Your task to perform on an android device: turn off picture-in-picture Image 0: 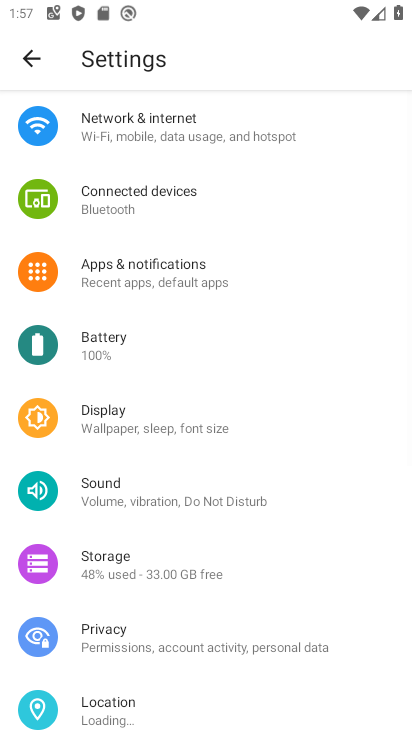
Step 0: press home button
Your task to perform on an android device: turn off picture-in-picture Image 1: 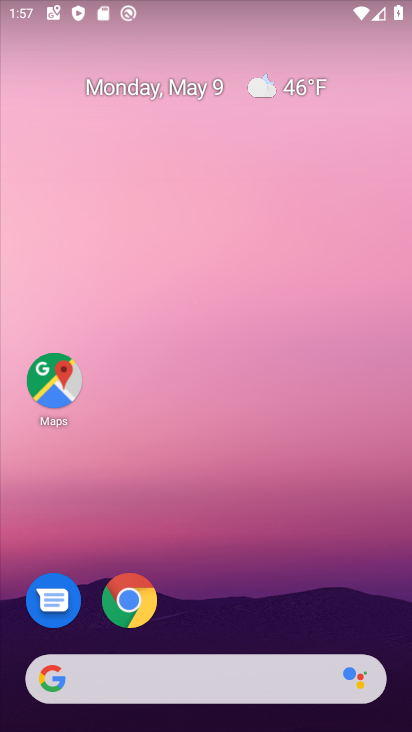
Step 1: click (124, 608)
Your task to perform on an android device: turn off picture-in-picture Image 2: 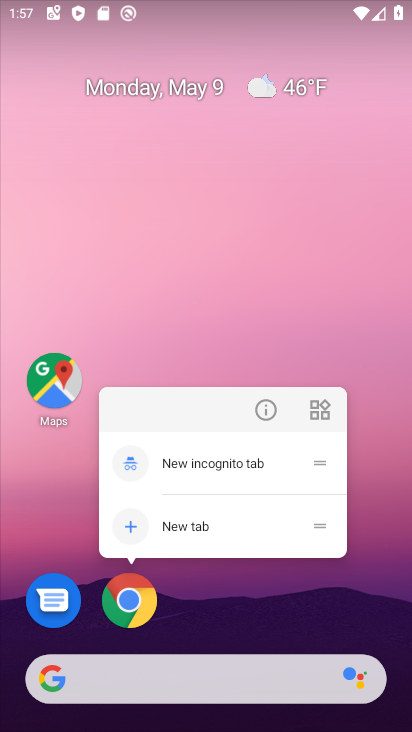
Step 2: click (260, 427)
Your task to perform on an android device: turn off picture-in-picture Image 3: 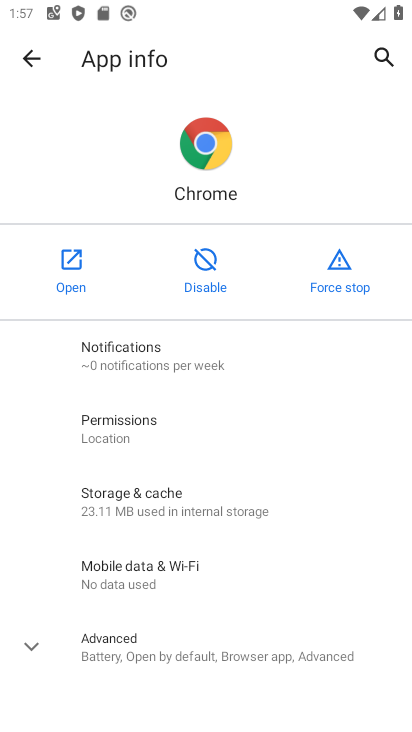
Step 3: click (124, 645)
Your task to perform on an android device: turn off picture-in-picture Image 4: 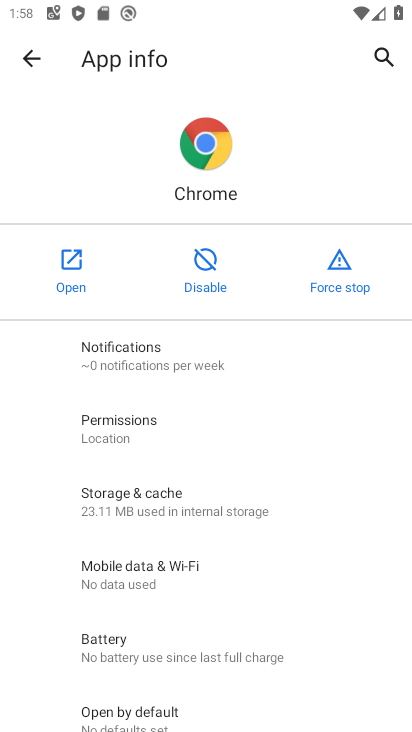
Step 4: drag from (183, 618) to (213, 233)
Your task to perform on an android device: turn off picture-in-picture Image 5: 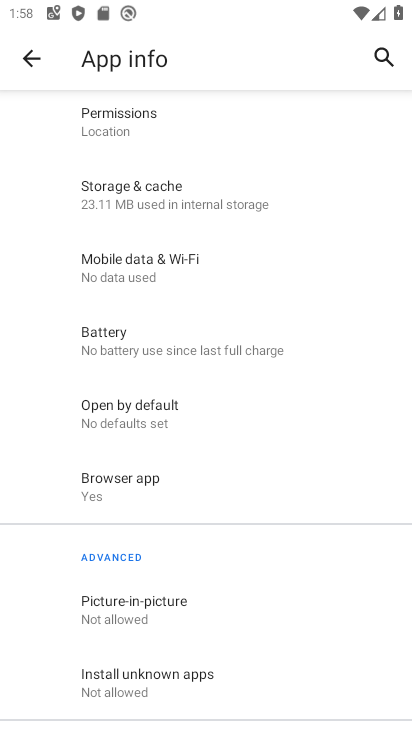
Step 5: click (152, 602)
Your task to perform on an android device: turn off picture-in-picture Image 6: 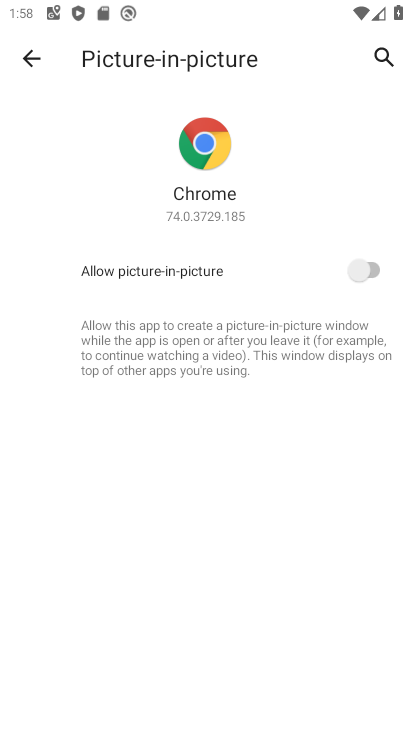
Step 6: task complete